Your task to perform on an android device: Go to location settings Image 0: 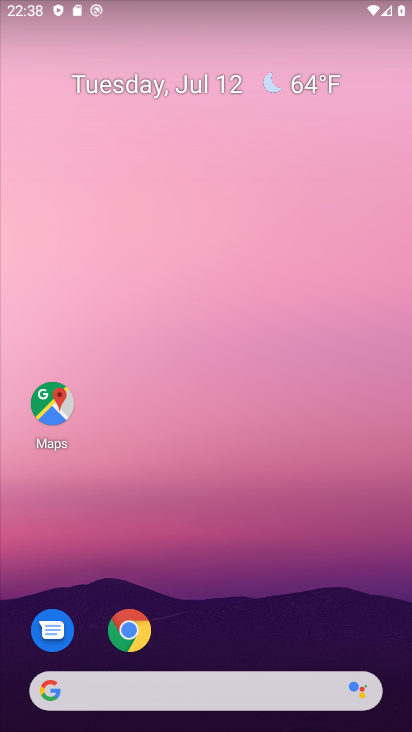
Step 0: drag from (346, 614) to (334, 264)
Your task to perform on an android device: Go to location settings Image 1: 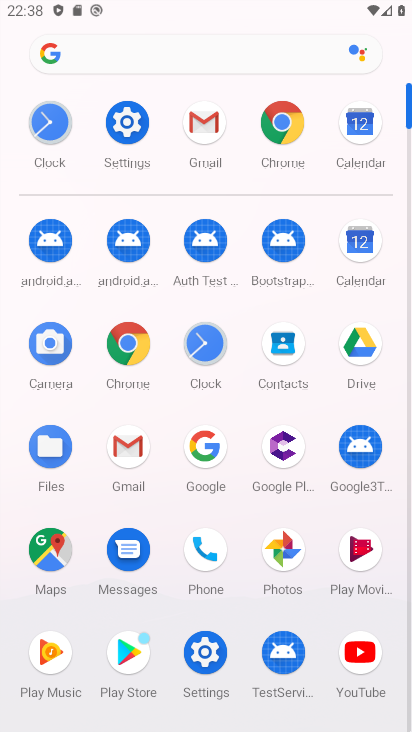
Step 1: click (208, 643)
Your task to perform on an android device: Go to location settings Image 2: 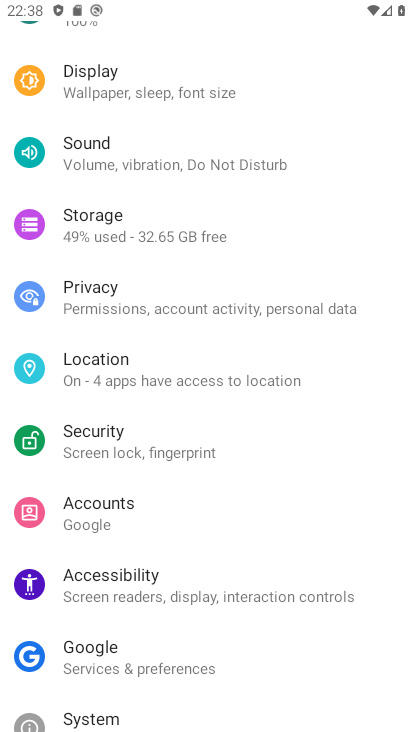
Step 2: drag from (360, 502) to (335, 364)
Your task to perform on an android device: Go to location settings Image 3: 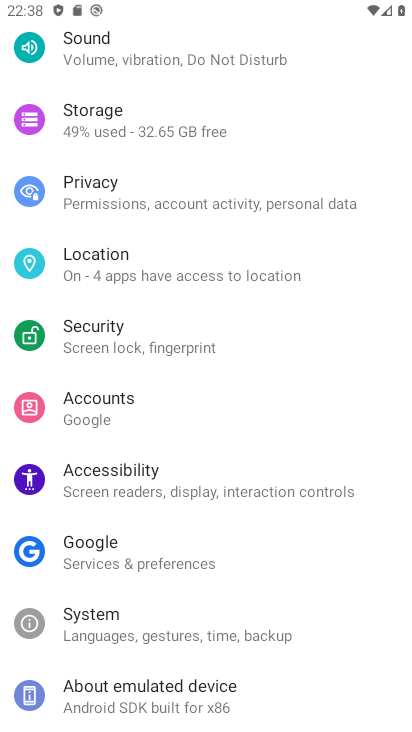
Step 3: drag from (338, 549) to (333, 401)
Your task to perform on an android device: Go to location settings Image 4: 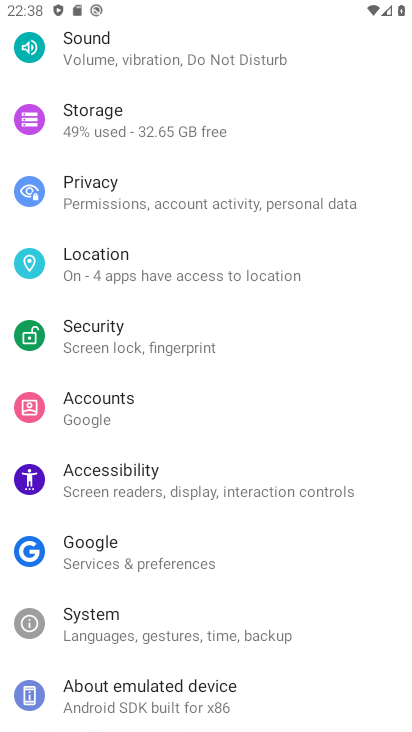
Step 4: drag from (345, 325) to (345, 435)
Your task to perform on an android device: Go to location settings Image 5: 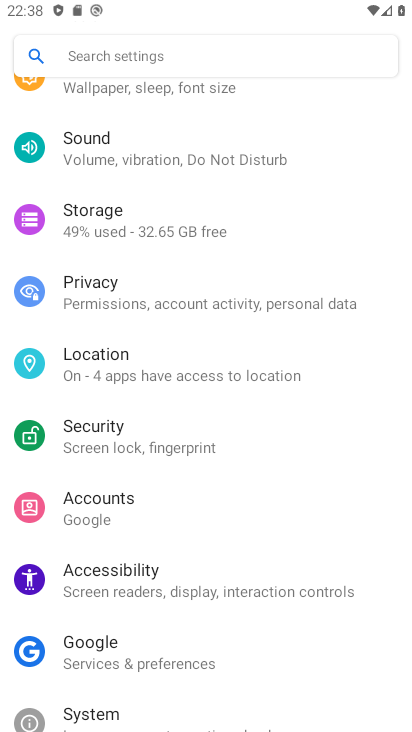
Step 5: drag from (360, 339) to (360, 478)
Your task to perform on an android device: Go to location settings Image 6: 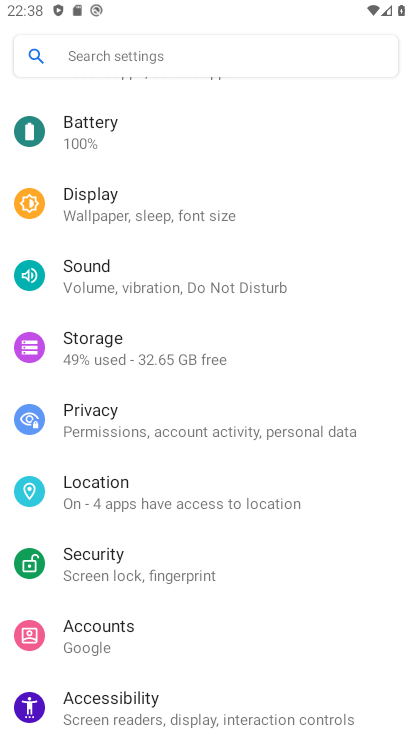
Step 6: click (312, 508)
Your task to perform on an android device: Go to location settings Image 7: 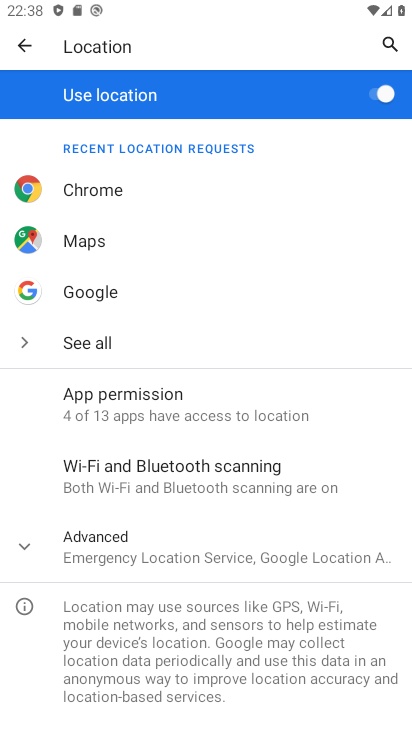
Step 7: task complete